Your task to perform on an android device: turn on sleep mode Image 0: 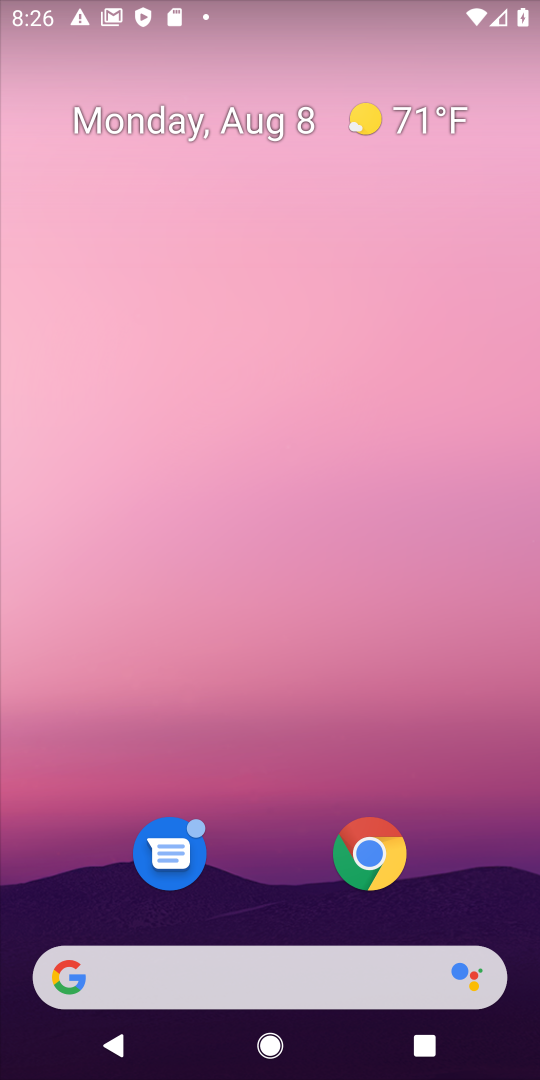
Step 0: drag from (303, 17) to (228, 453)
Your task to perform on an android device: turn on sleep mode Image 1: 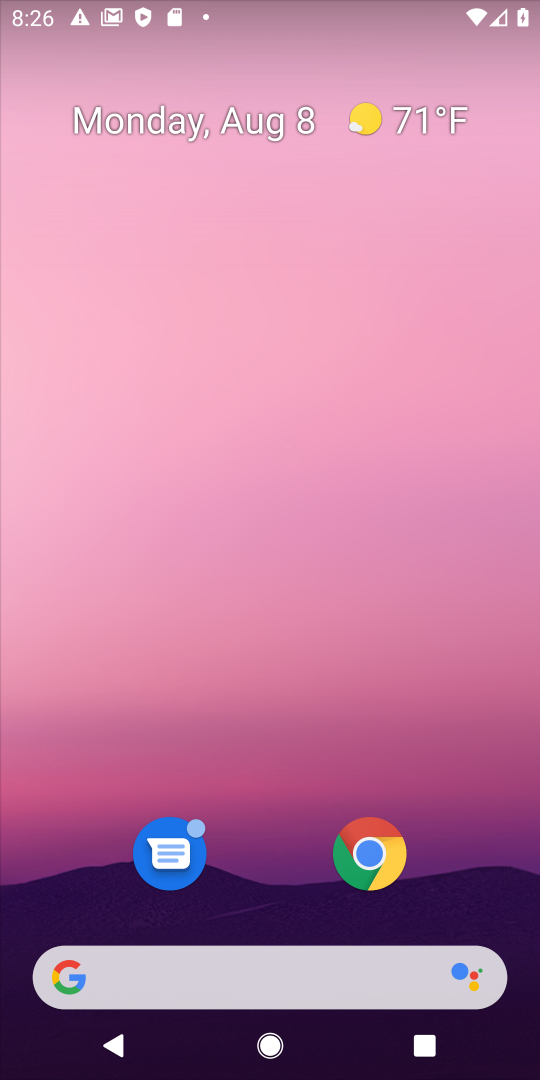
Step 1: drag from (71, 49) to (141, 623)
Your task to perform on an android device: turn on sleep mode Image 2: 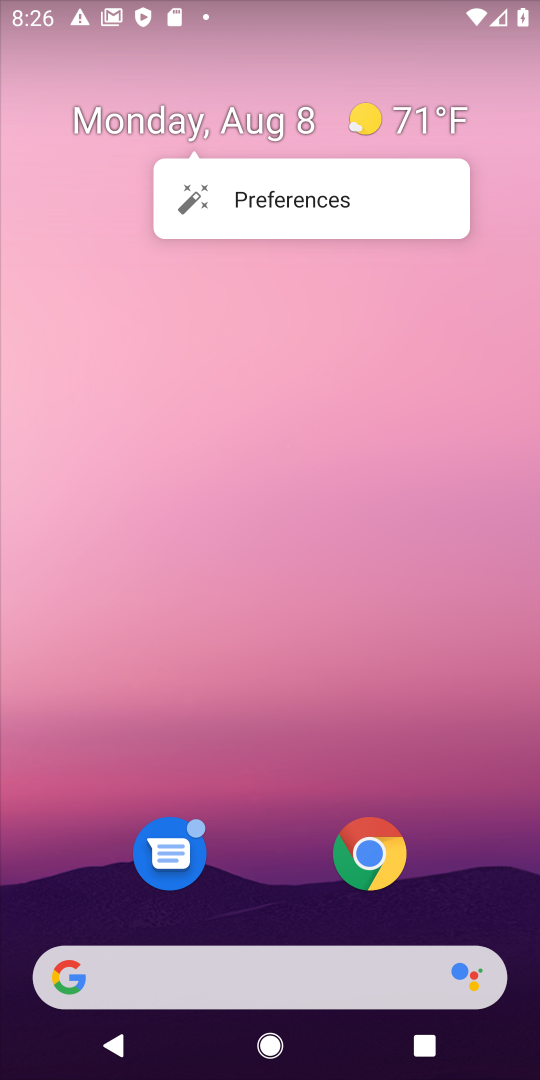
Step 2: click (141, 623)
Your task to perform on an android device: turn on sleep mode Image 3: 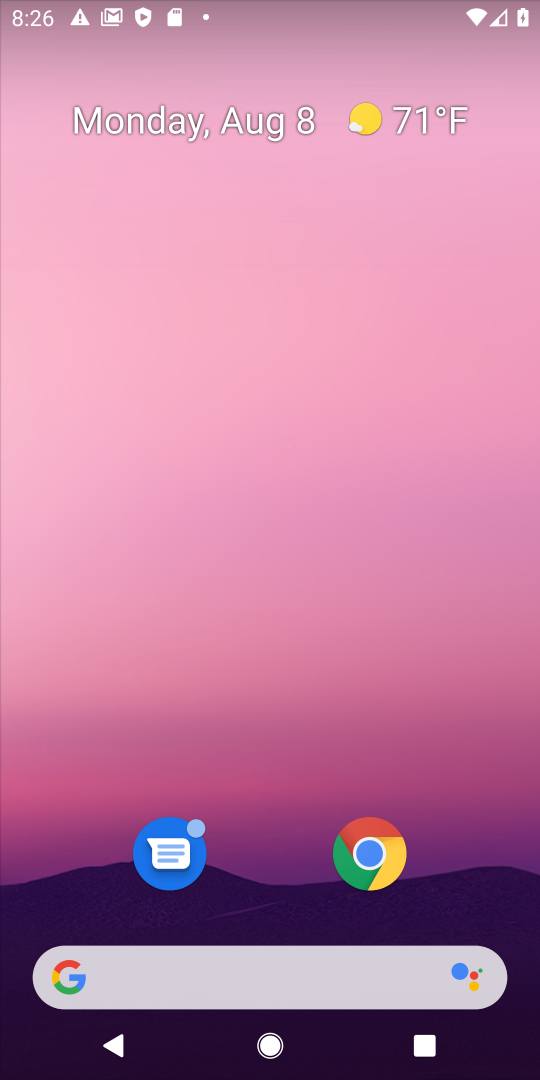
Step 3: drag from (144, 14) to (123, 1012)
Your task to perform on an android device: turn on sleep mode Image 4: 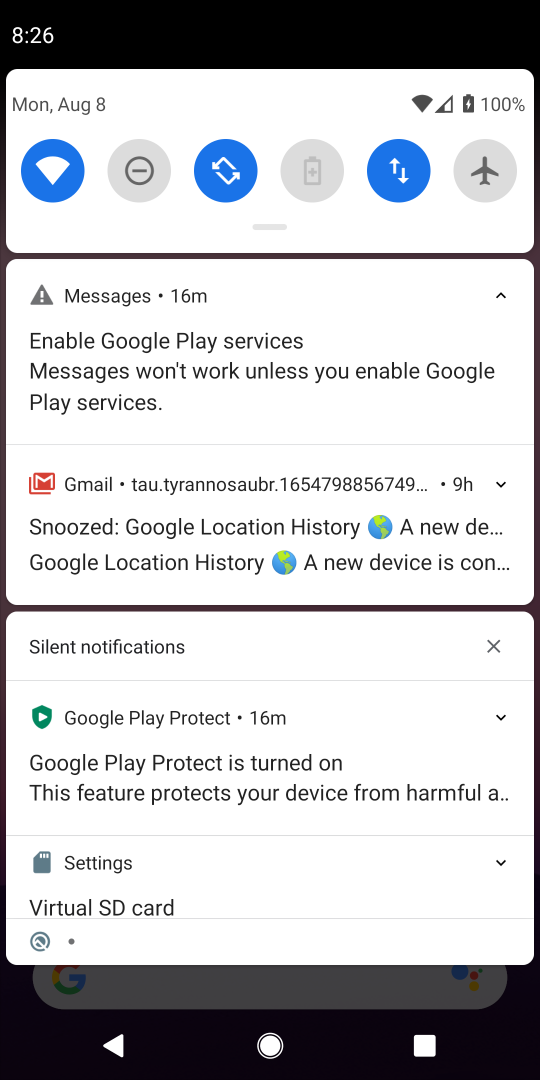
Step 4: click (126, 172)
Your task to perform on an android device: turn on sleep mode Image 5: 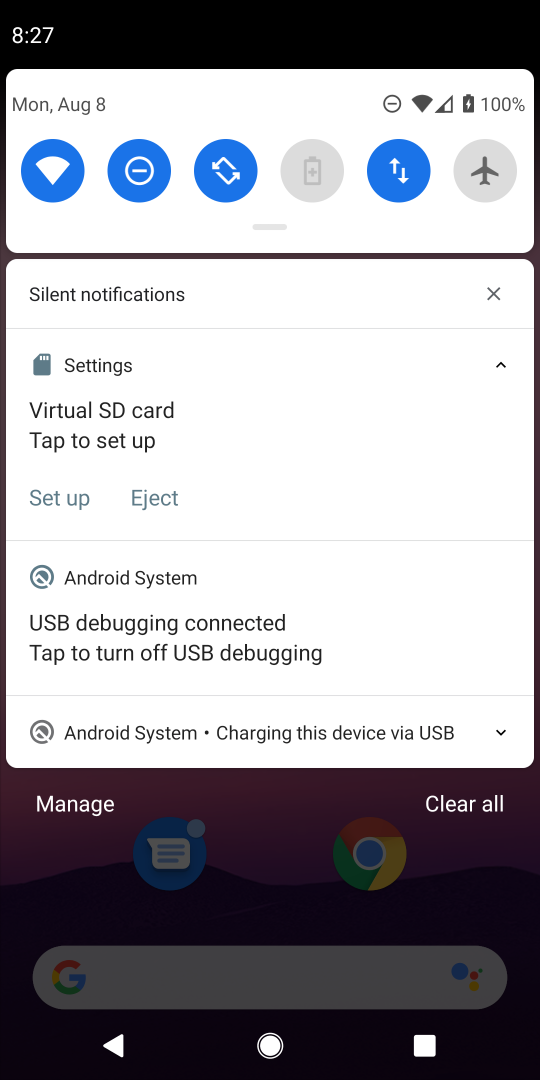
Step 5: task complete